Your task to perform on an android device: Is it going to rain this weekend? Image 0: 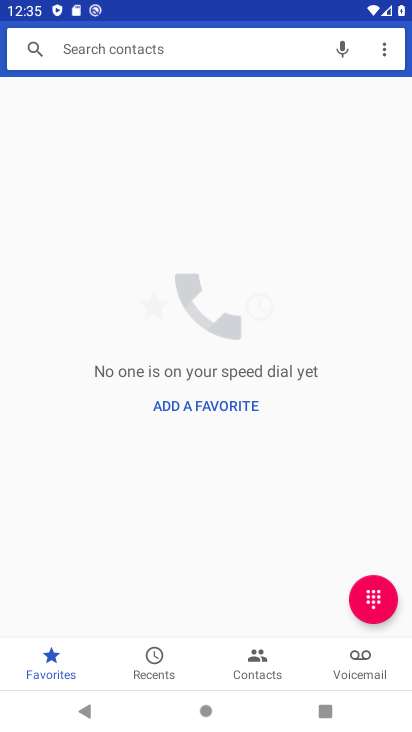
Step 0: press back button
Your task to perform on an android device: Is it going to rain this weekend? Image 1: 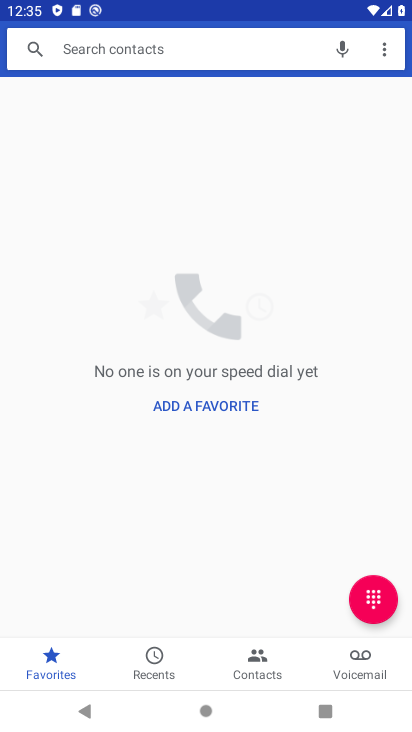
Step 1: press back button
Your task to perform on an android device: Is it going to rain this weekend? Image 2: 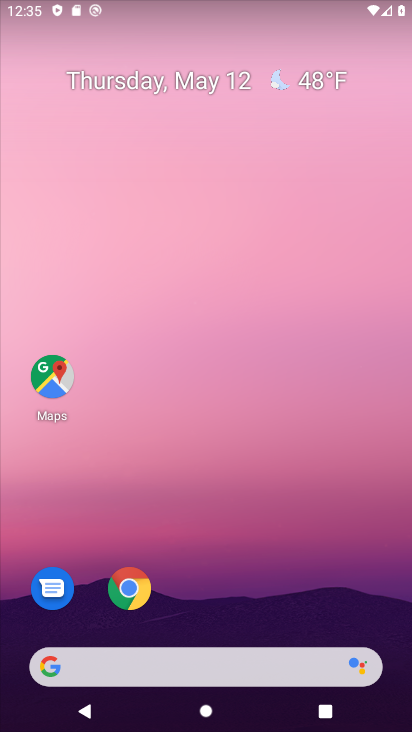
Step 2: click (285, 81)
Your task to perform on an android device: Is it going to rain this weekend? Image 3: 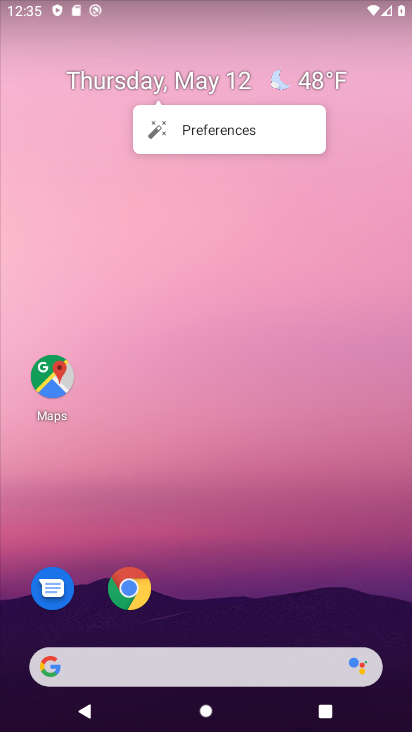
Step 3: click (286, 81)
Your task to perform on an android device: Is it going to rain this weekend? Image 4: 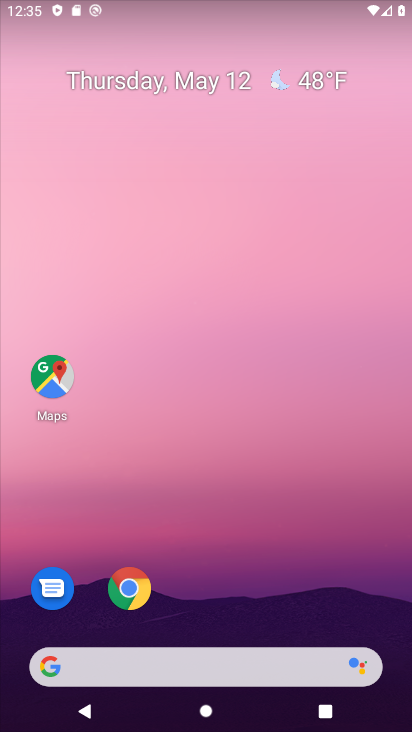
Step 4: click (286, 87)
Your task to perform on an android device: Is it going to rain this weekend? Image 5: 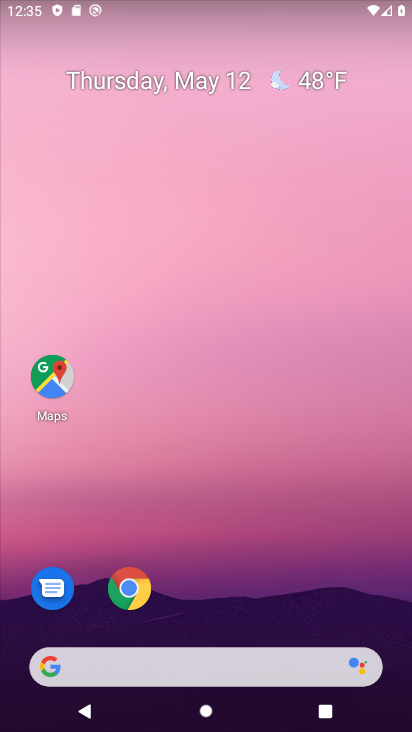
Step 5: click (309, 56)
Your task to perform on an android device: Is it going to rain this weekend? Image 6: 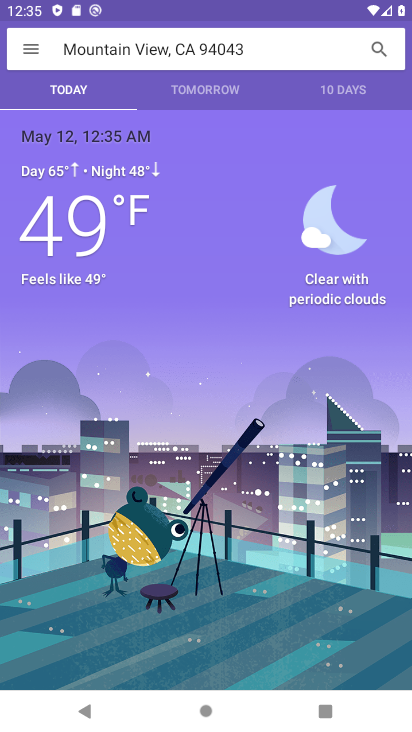
Step 6: click (182, 87)
Your task to perform on an android device: Is it going to rain this weekend? Image 7: 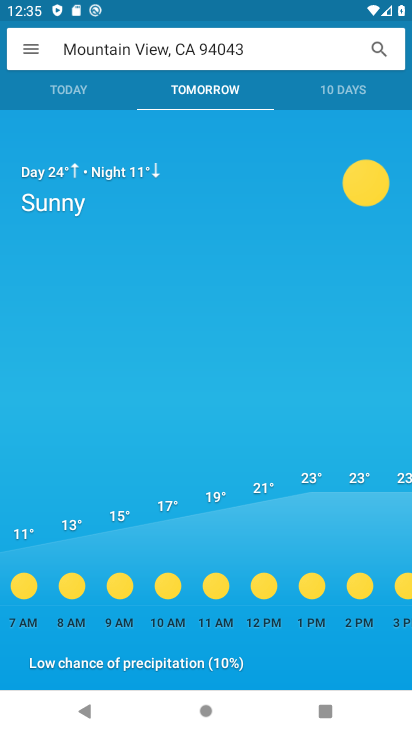
Step 7: drag from (221, 418) to (200, 1)
Your task to perform on an android device: Is it going to rain this weekend? Image 8: 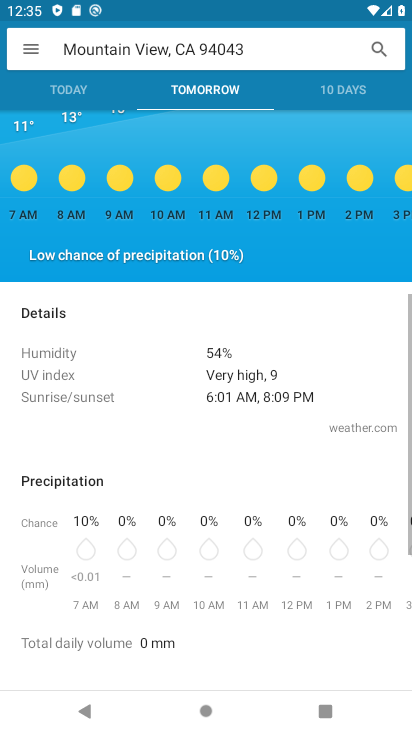
Step 8: drag from (223, 345) to (240, 18)
Your task to perform on an android device: Is it going to rain this weekend? Image 9: 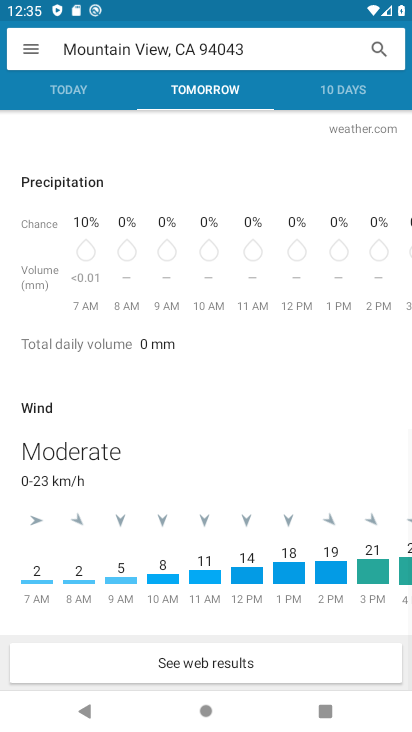
Step 9: click (352, 90)
Your task to perform on an android device: Is it going to rain this weekend? Image 10: 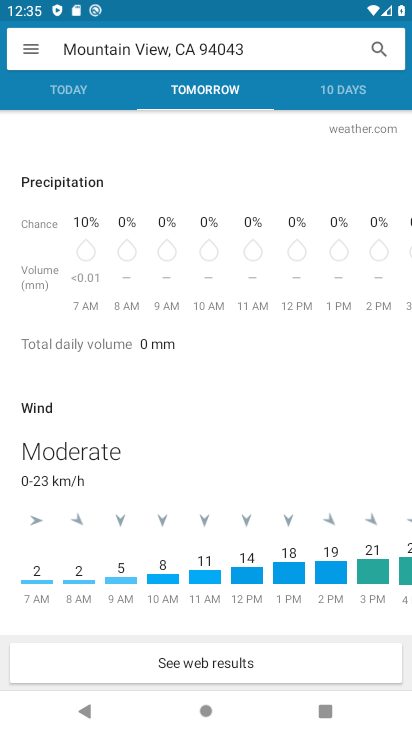
Step 10: click (352, 90)
Your task to perform on an android device: Is it going to rain this weekend? Image 11: 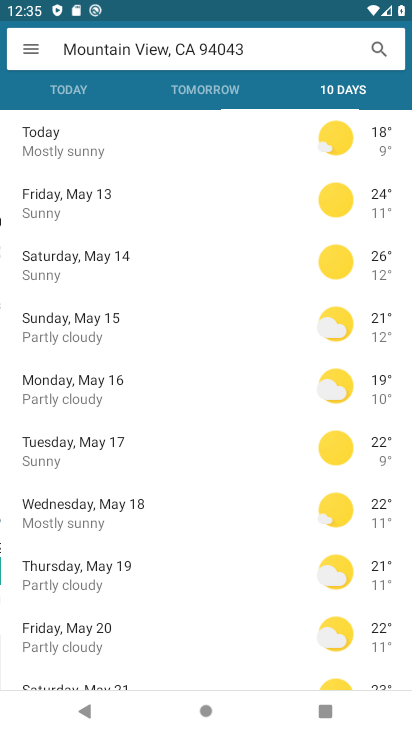
Step 11: click (352, 90)
Your task to perform on an android device: Is it going to rain this weekend? Image 12: 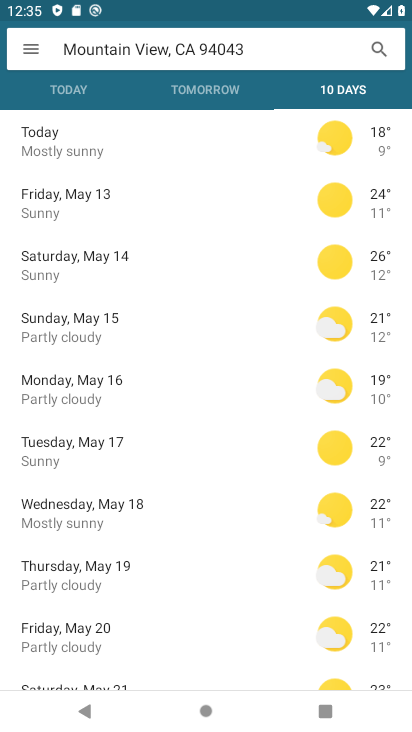
Step 12: click (352, 90)
Your task to perform on an android device: Is it going to rain this weekend? Image 13: 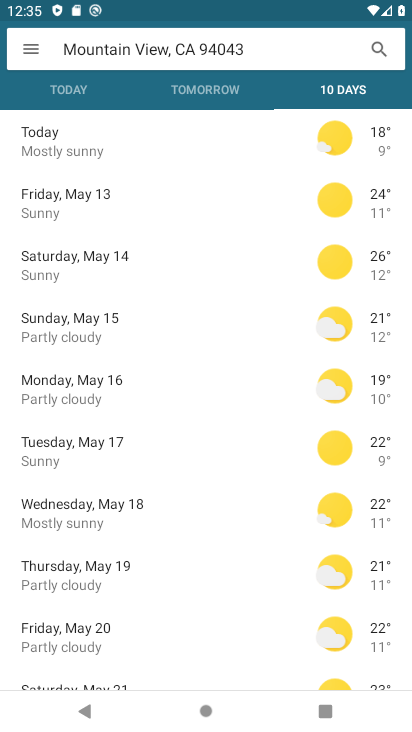
Step 13: task complete